Your task to perform on an android device: Open settings Image 0: 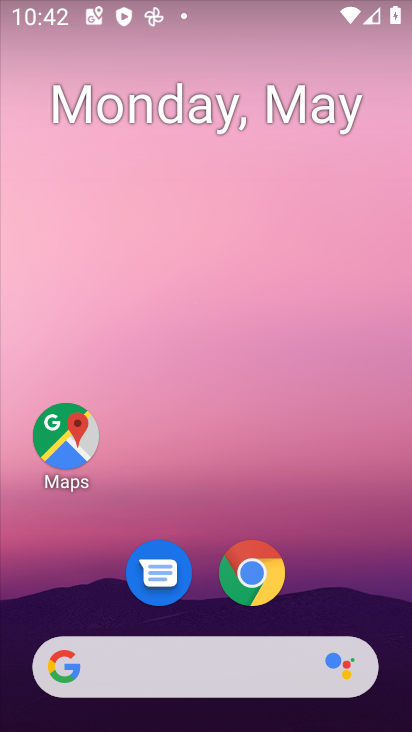
Step 0: drag from (366, 565) to (318, 10)
Your task to perform on an android device: Open settings Image 1: 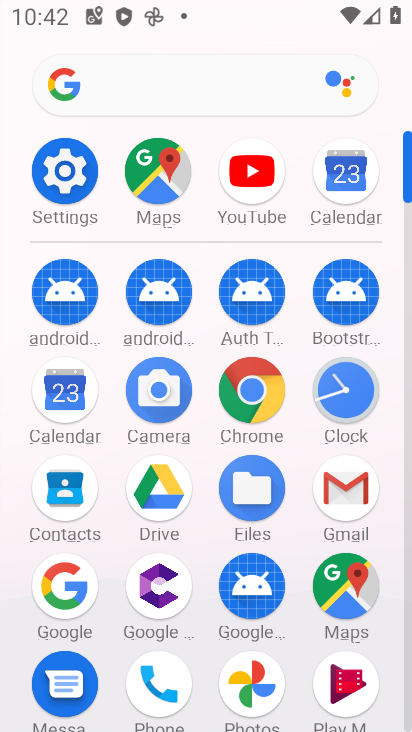
Step 1: click (48, 207)
Your task to perform on an android device: Open settings Image 2: 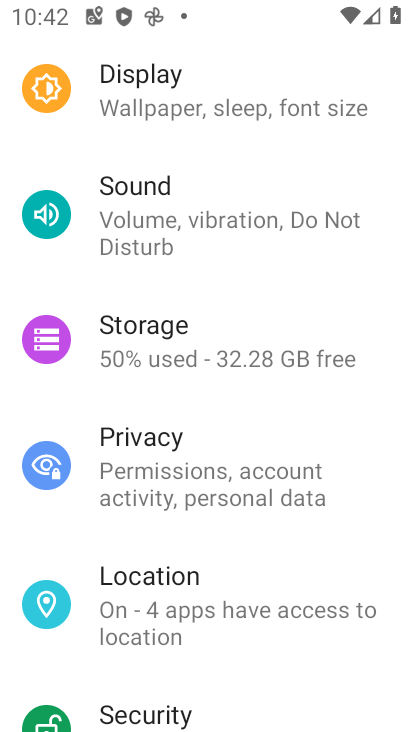
Step 2: task complete